Your task to perform on an android device: Search for Italian restaurants on Maps Image 0: 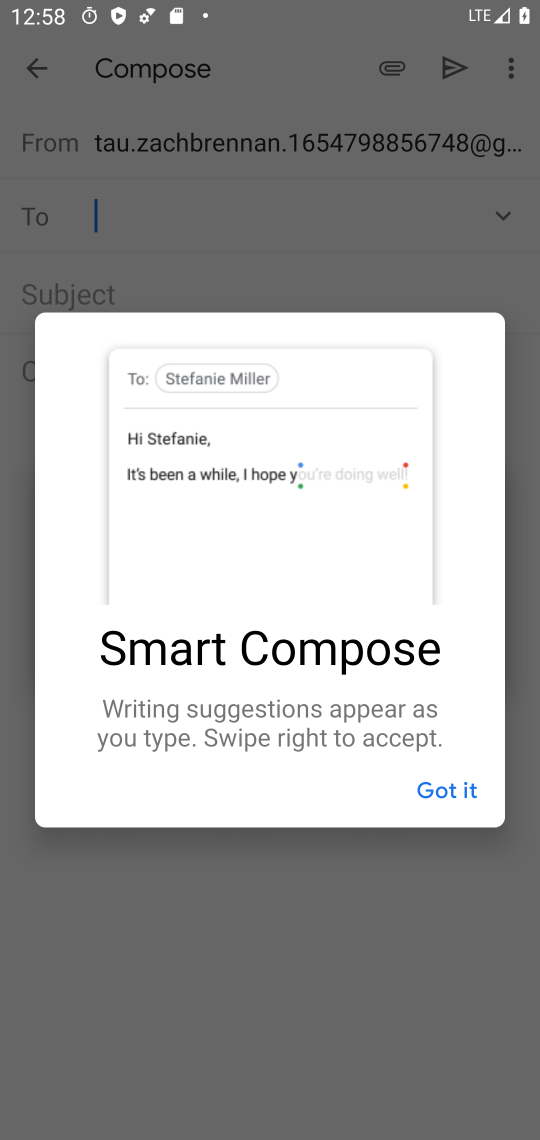
Step 0: press home button
Your task to perform on an android device: Search for Italian restaurants on Maps Image 1: 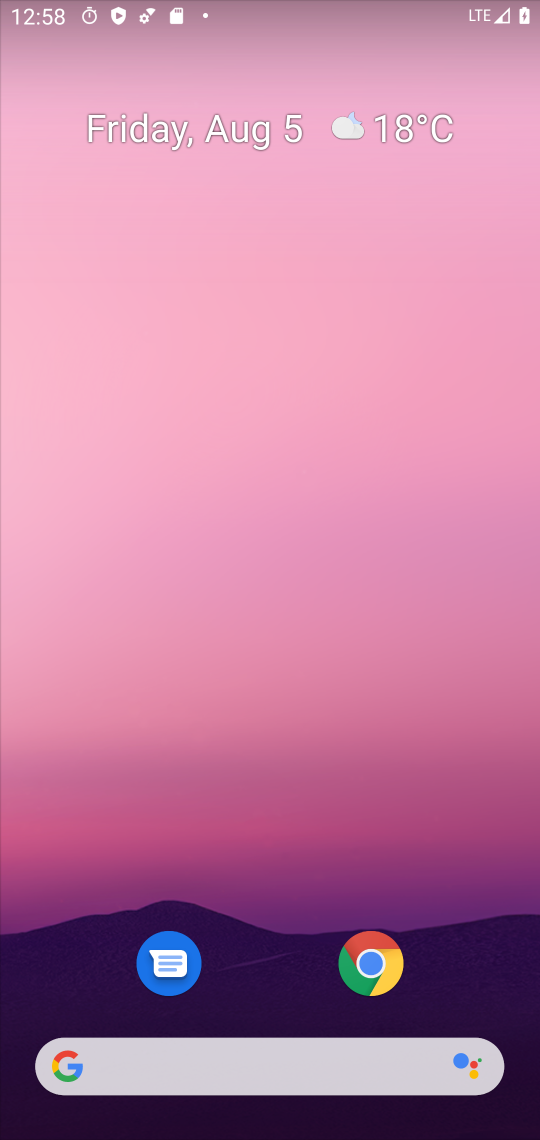
Step 1: drag from (254, 967) to (305, 98)
Your task to perform on an android device: Search for Italian restaurants on Maps Image 2: 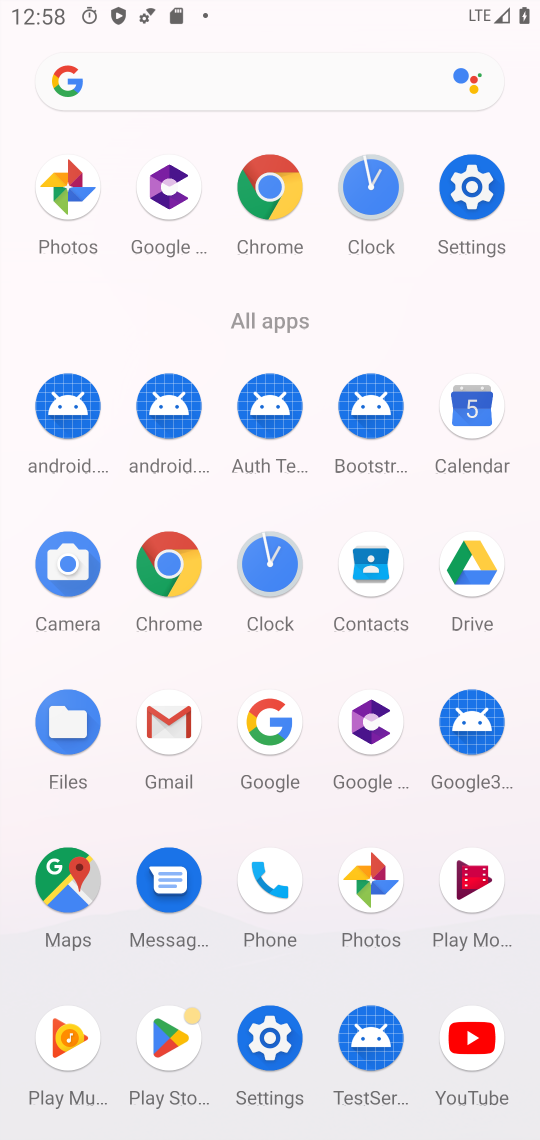
Step 2: click (57, 897)
Your task to perform on an android device: Search for Italian restaurants on Maps Image 3: 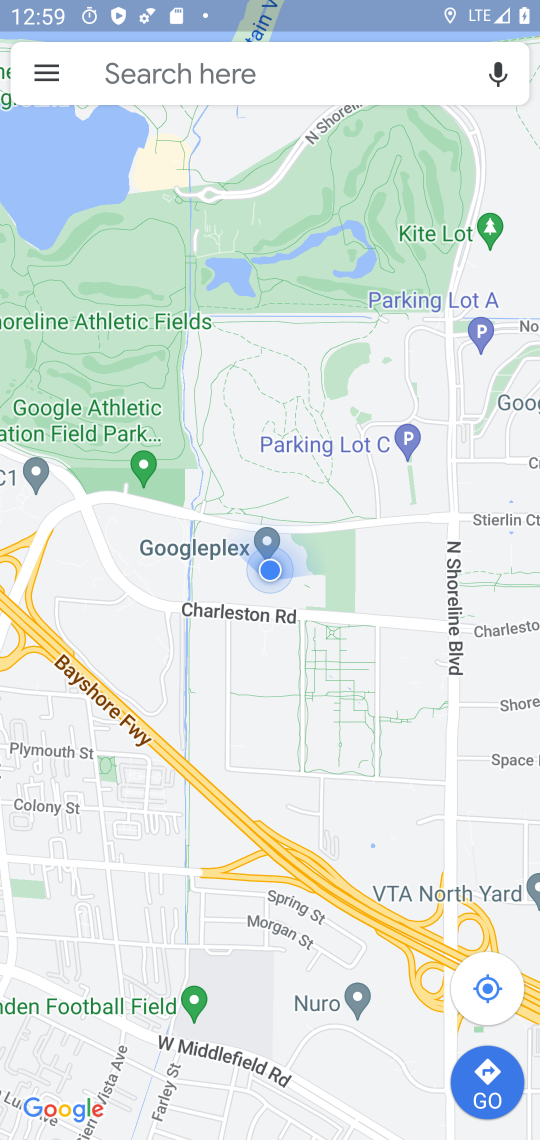
Step 3: click (275, 60)
Your task to perform on an android device: Search for Italian restaurants on Maps Image 4: 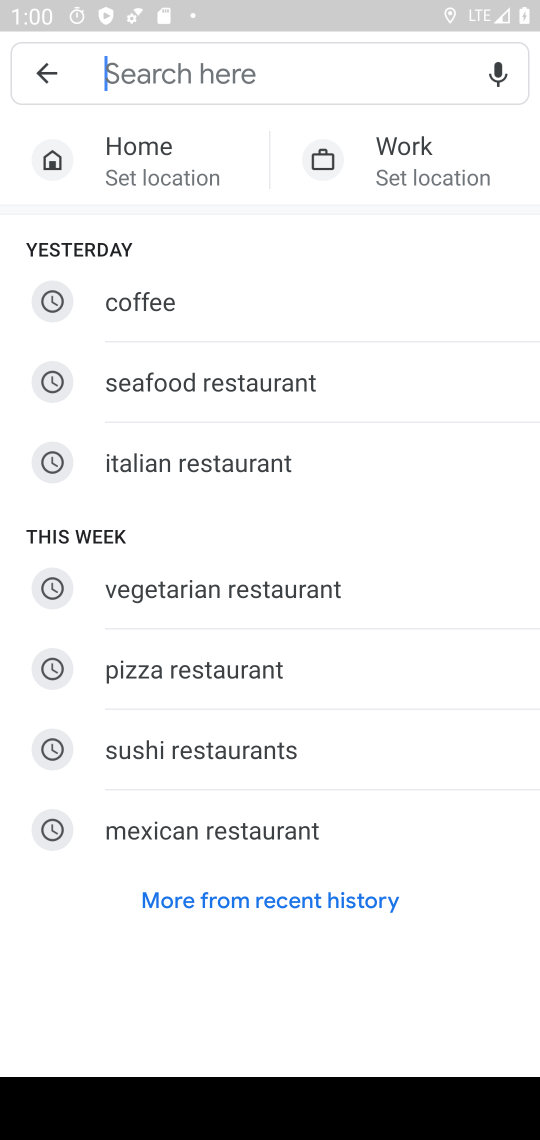
Step 4: click (156, 468)
Your task to perform on an android device: Search for Italian restaurants on Maps Image 5: 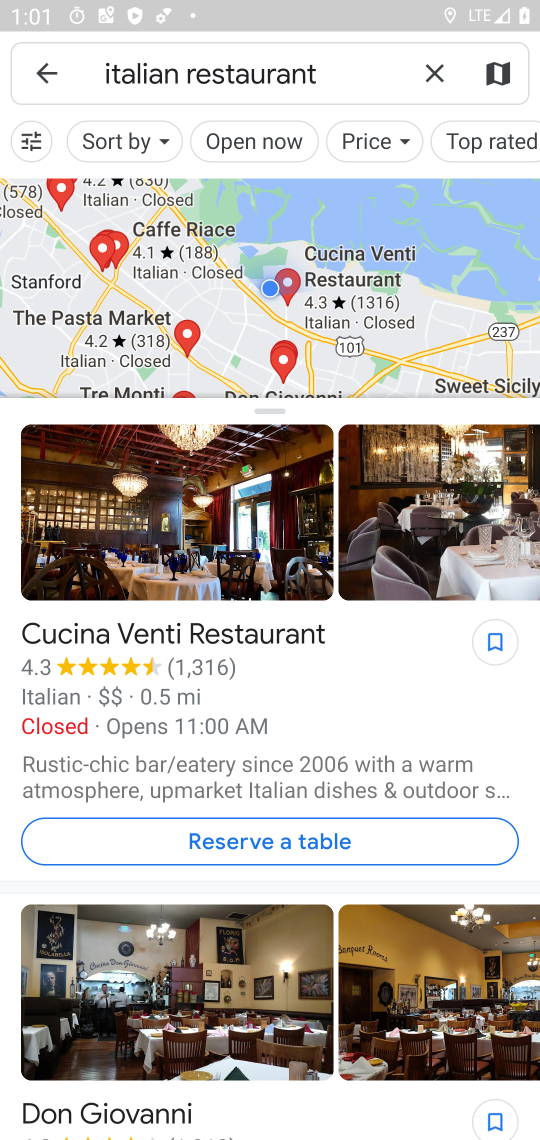
Step 5: task complete